Your task to perform on an android device: What is the news today? Image 0: 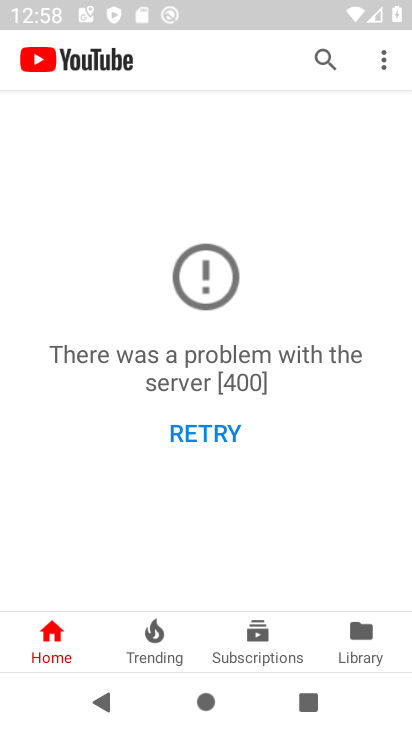
Step 0: press home button
Your task to perform on an android device: What is the news today? Image 1: 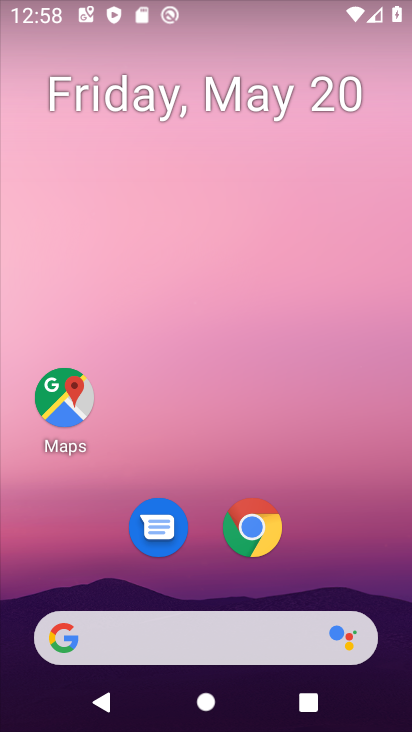
Step 1: click (72, 640)
Your task to perform on an android device: What is the news today? Image 2: 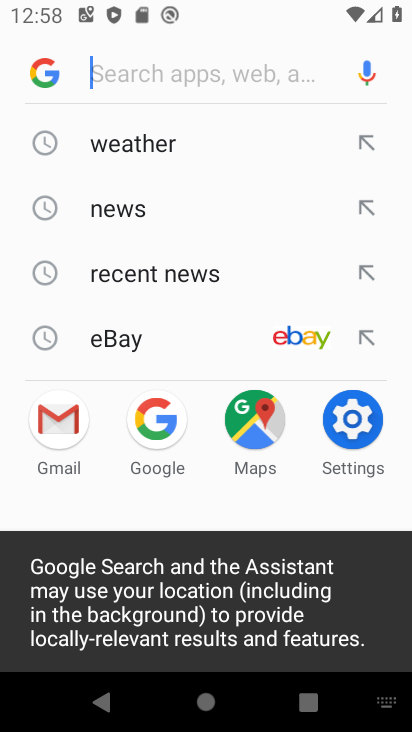
Step 2: click (143, 215)
Your task to perform on an android device: What is the news today? Image 3: 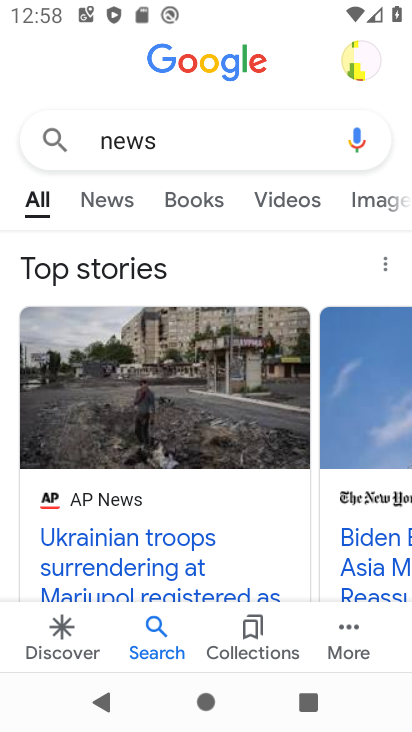
Step 3: click (117, 206)
Your task to perform on an android device: What is the news today? Image 4: 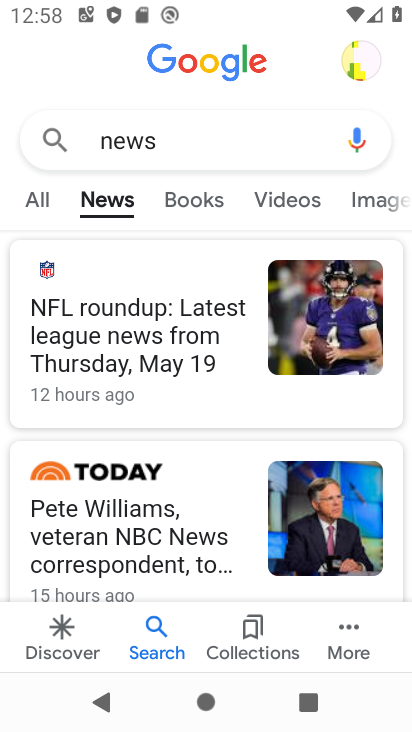
Step 4: task complete